Your task to perform on an android device: Open the calendar app, open the side menu, and click the "Day" option Image 0: 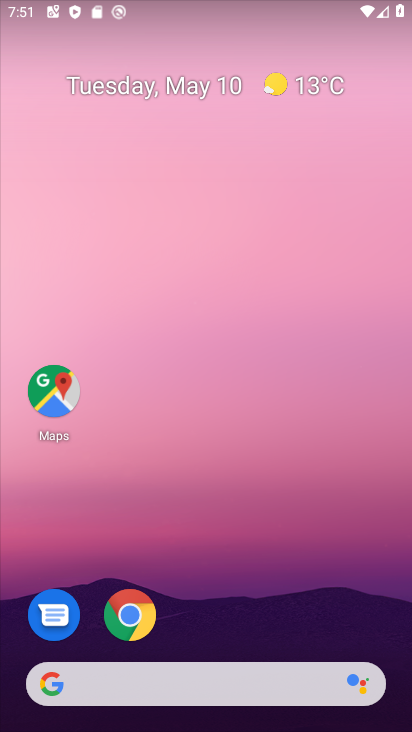
Step 0: drag from (275, 575) to (121, 85)
Your task to perform on an android device: Open the calendar app, open the side menu, and click the "Day" option Image 1: 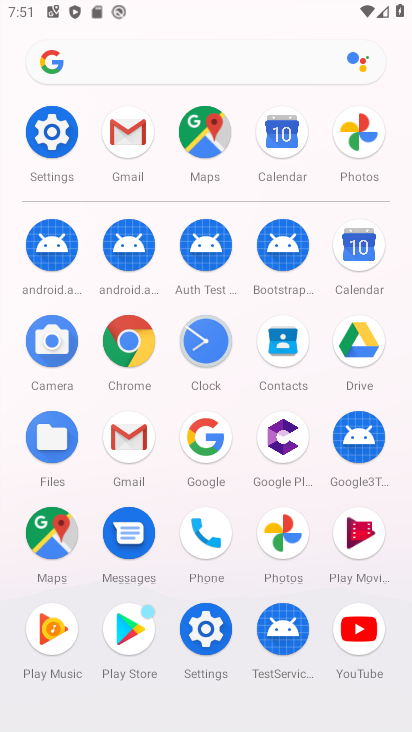
Step 1: click (356, 234)
Your task to perform on an android device: Open the calendar app, open the side menu, and click the "Day" option Image 2: 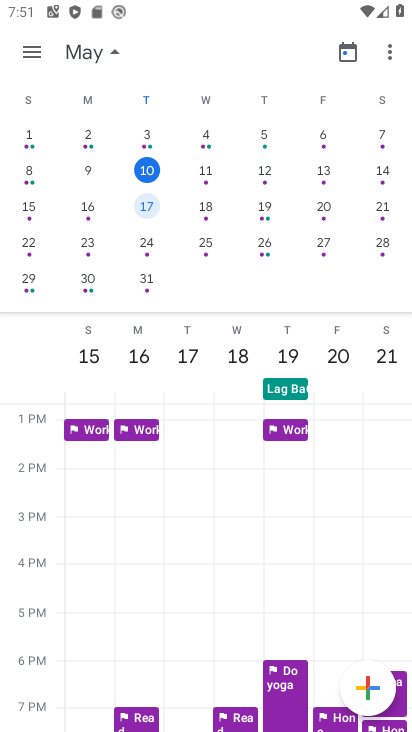
Step 2: click (31, 48)
Your task to perform on an android device: Open the calendar app, open the side menu, and click the "Day" option Image 3: 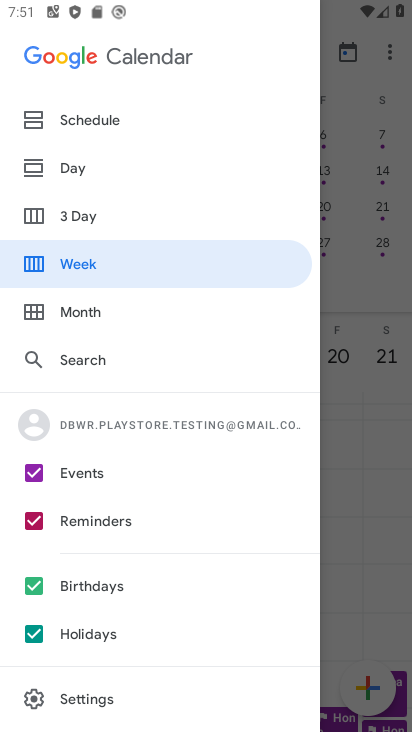
Step 3: click (74, 164)
Your task to perform on an android device: Open the calendar app, open the side menu, and click the "Day" option Image 4: 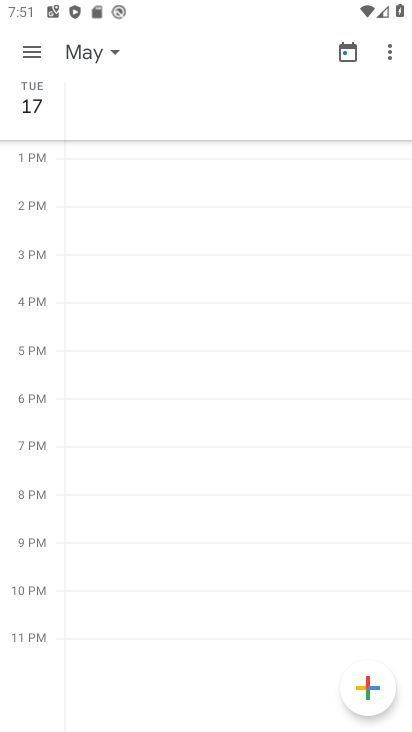
Step 4: task complete